Your task to perform on an android device: Go to Maps Image 0: 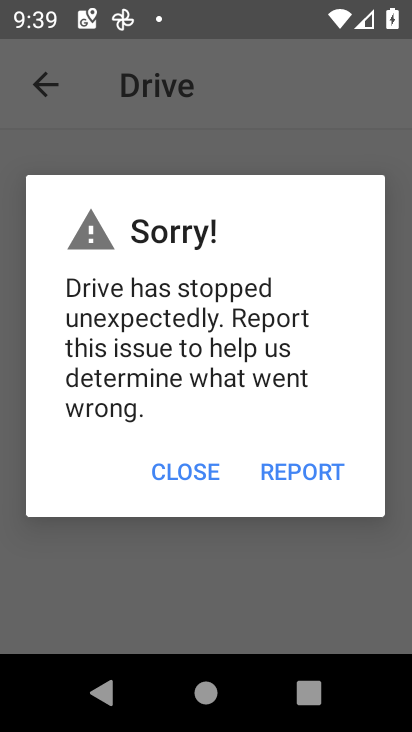
Step 0: press home button
Your task to perform on an android device: Go to Maps Image 1: 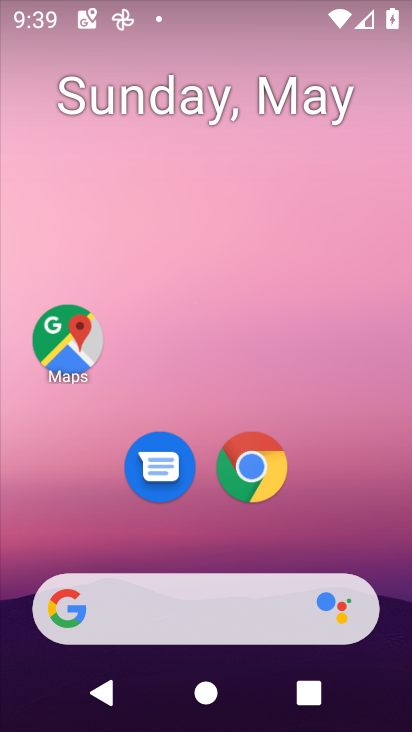
Step 1: drag from (375, 533) to (353, 85)
Your task to perform on an android device: Go to Maps Image 2: 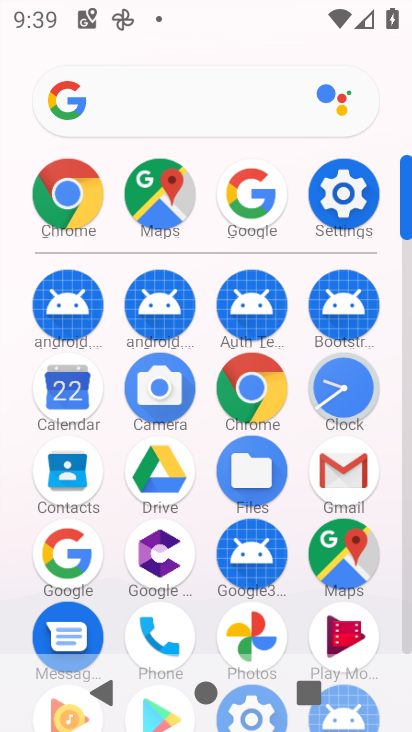
Step 2: click (344, 554)
Your task to perform on an android device: Go to Maps Image 3: 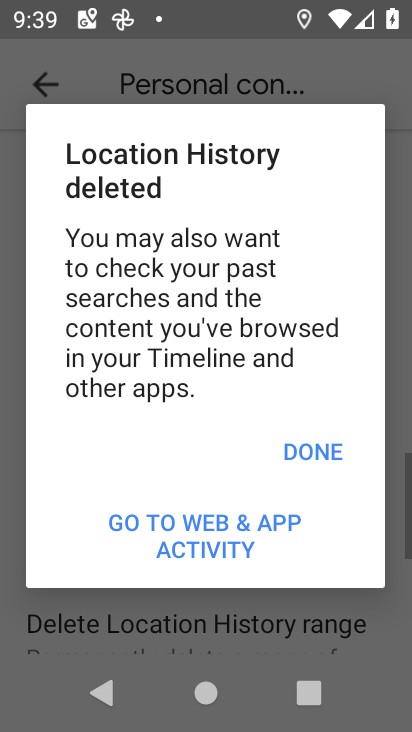
Step 3: click (326, 456)
Your task to perform on an android device: Go to Maps Image 4: 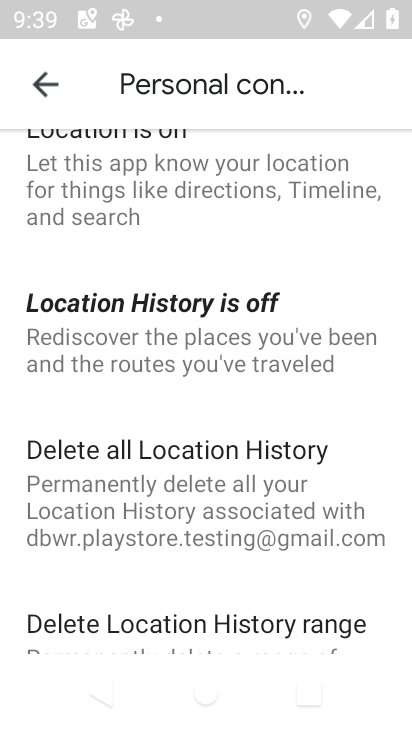
Step 4: drag from (344, 262) to (330, 606)
Your task to perform on an android device: Go to Maps Image 5: 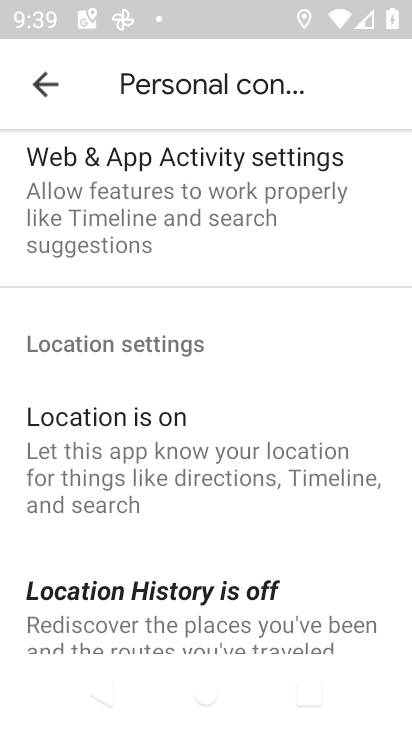
Step 5: click (65, 76)
Your task to perform on an android device: Go to Maps Image 6: 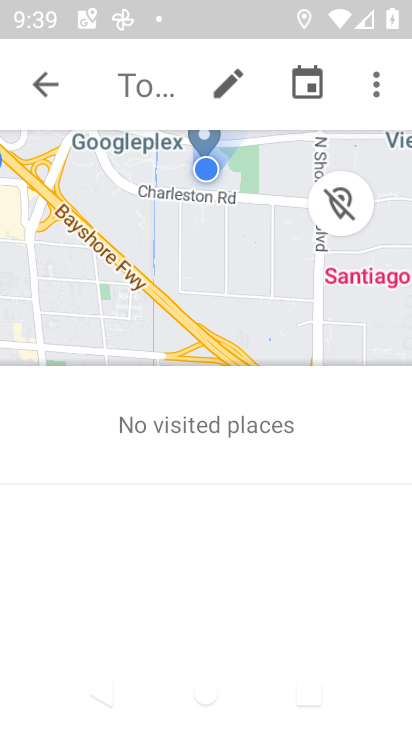
Step 6: click (54, 106)
Your task to perform on an android device: Go to Maps Image 7: 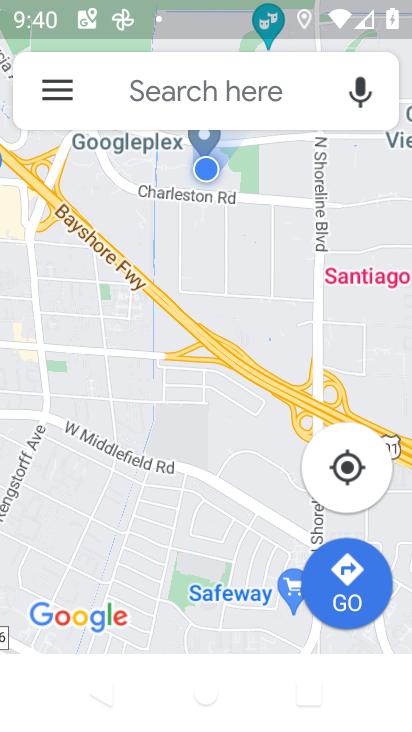
Step 7: task complete